Your task to perform on an android device: toggle pop-ups in chrome Image 0: 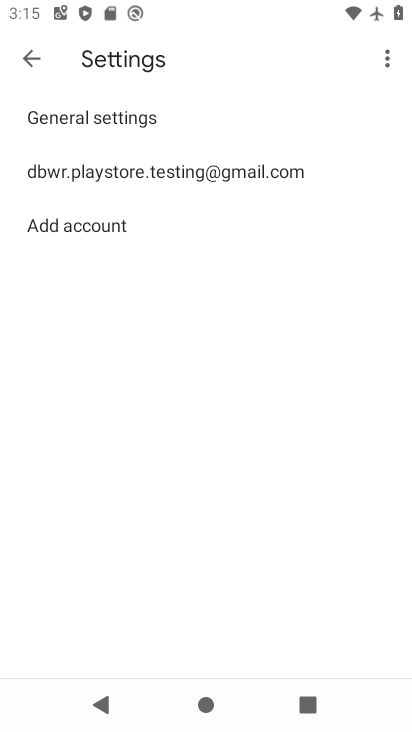
Step 0: press home button
Your task to perform on an android device: toggle pop-ups in chrome Image 1: 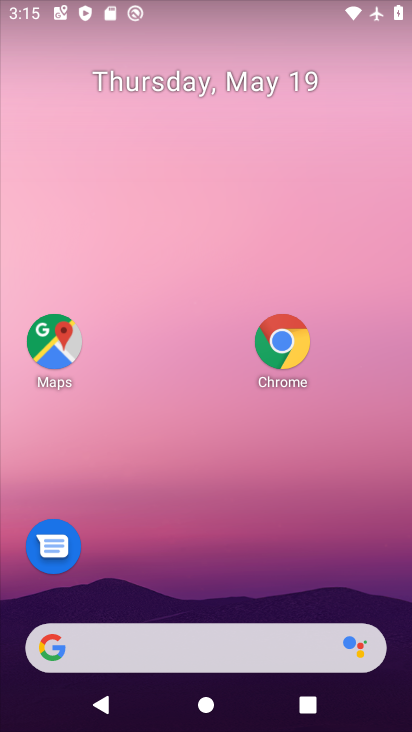
Step 1: click (298, 337)
Your task to perform on an android device: toggle pop-ups in chrome Image 2: 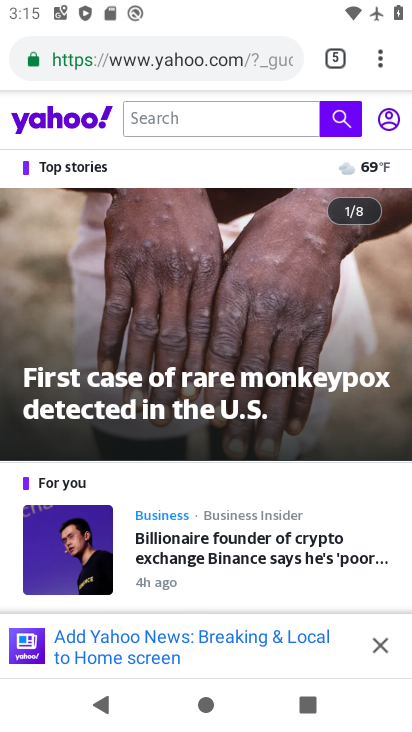
Step 2: drag from (385, 62) to (259, 562)
Your task to perform on an android device: toggle pop-ups in chrome Image 3: 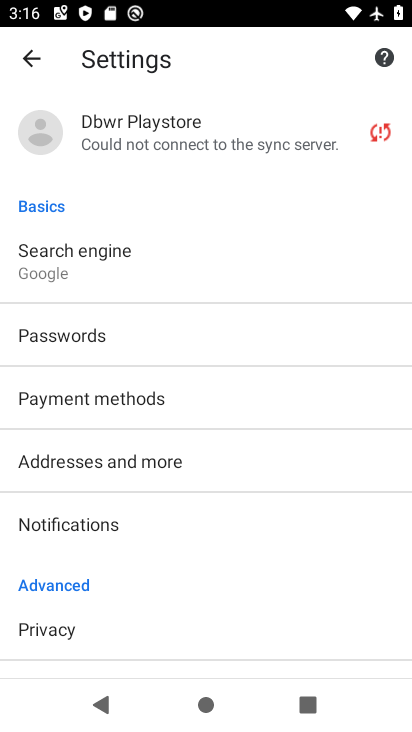
Step 3: drag from (185, 547) to (318, 280)
Your task to perform on an android device: toggle pop-ups in chrome Image 4: 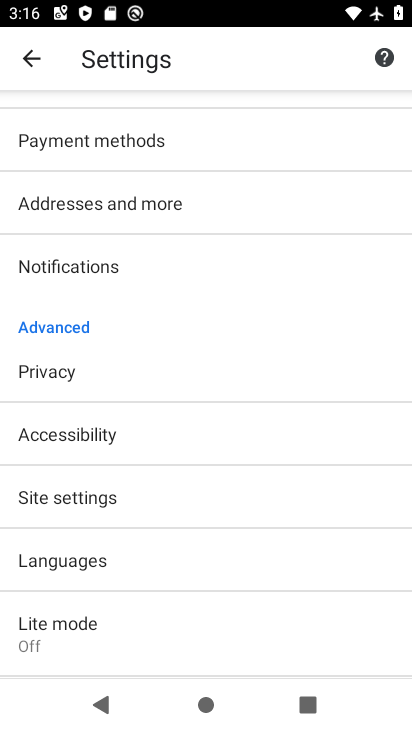
Step 4: click (97, 496)
Your task to perform on an android device: toggle pop-ups in chrome Image 5: 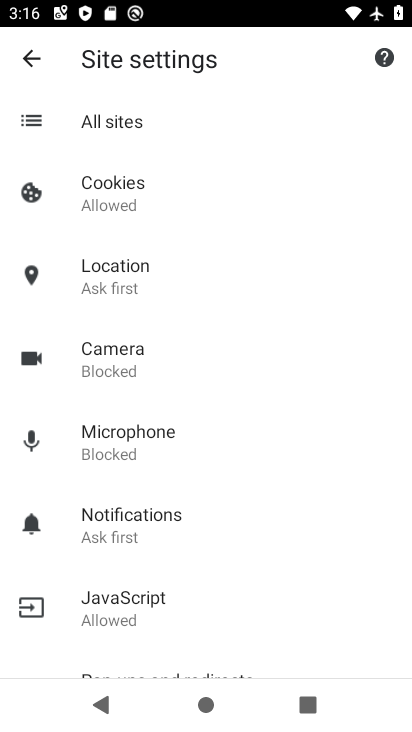
Step 5: drag from (234, 564) to (330, 251)
Your task to perform on an android device: toggle pop-ups in chrome Image 6: 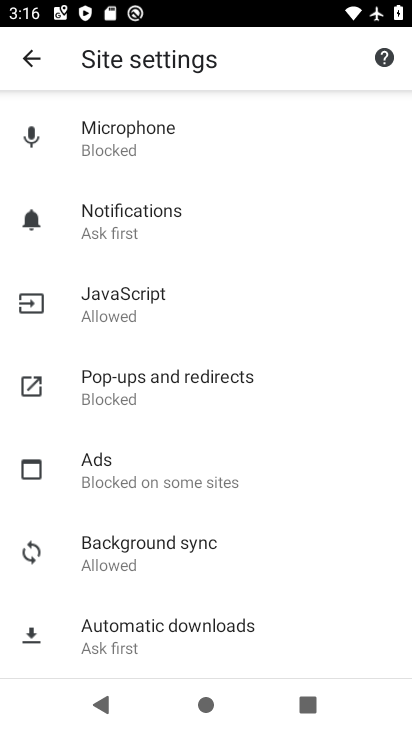
Step 6: click (145, 391)
Your task to perform on an android device: toggle pop-ups in chrome Image 7: 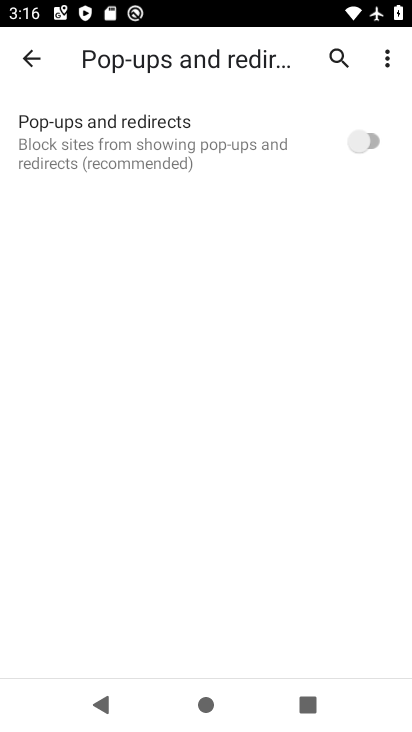
Step 7: click (373, 137)
Your task to perform on an android device: toggle pop-ups in chrome Image 8: 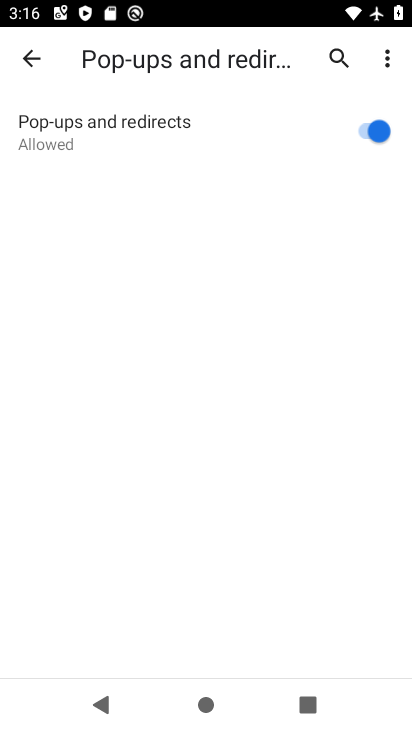
Step 8: task complete